Your task to perform on an android device: change the clock display to analog Image 0: 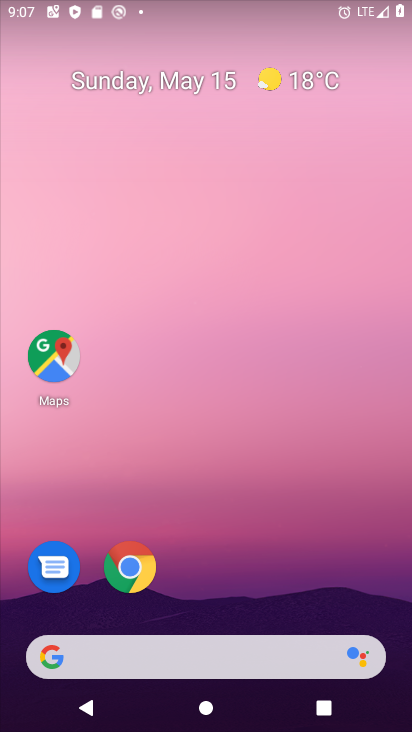
Step 0: drag from (156, 689) to (244, 0)
Your task to perform on an android device: change the clock display to analog Image 1: 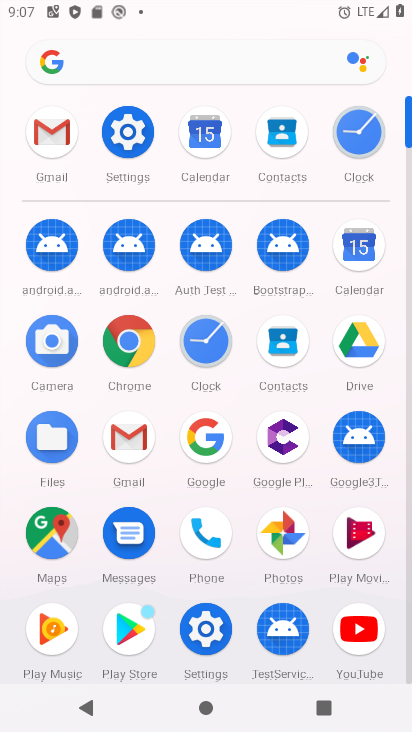
Step 1: click (209, 361)
Your task to perform on an android device: change the clock display to analog Image 2: 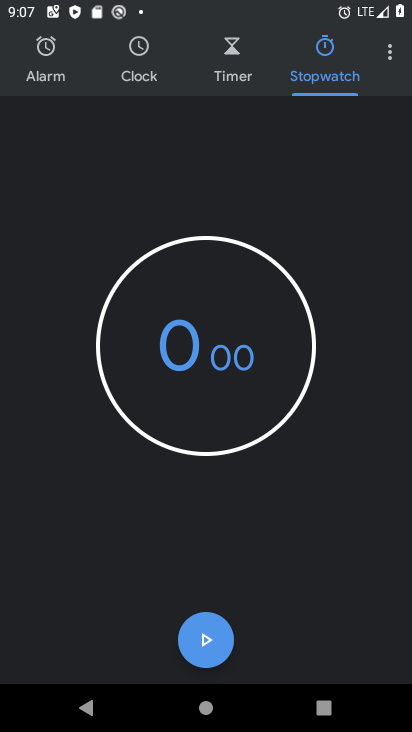
Step 2: click (390, 54)
Your task to perform on an android device: change the clock display to analog Image 3: 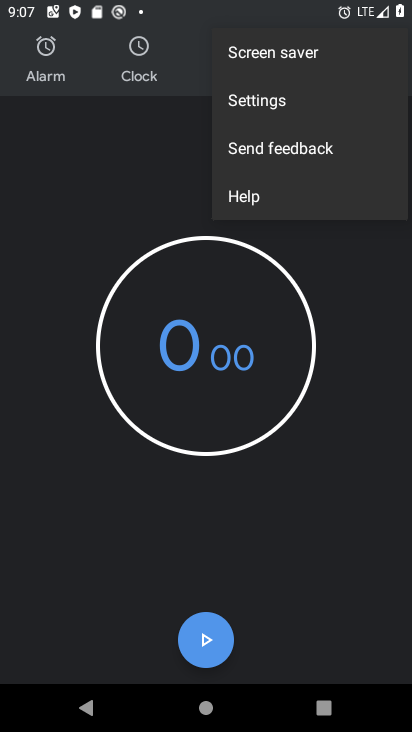
Step 3: click (288, 96)
Your task to perform on an android device: change the clock display to analog Image 4: 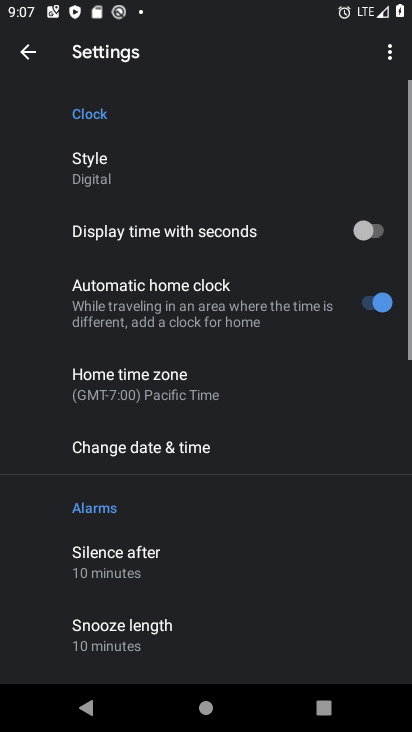
Step 4: click (216, 198)
Your task to perform on an android device: change the clock display to analog Image 5: 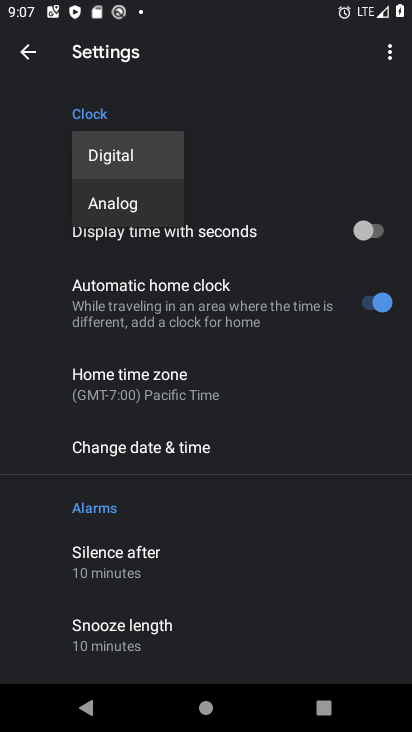
Step 5: click (115, 212)
Your task to perform on an android device: change the clock display to analog Image 6: 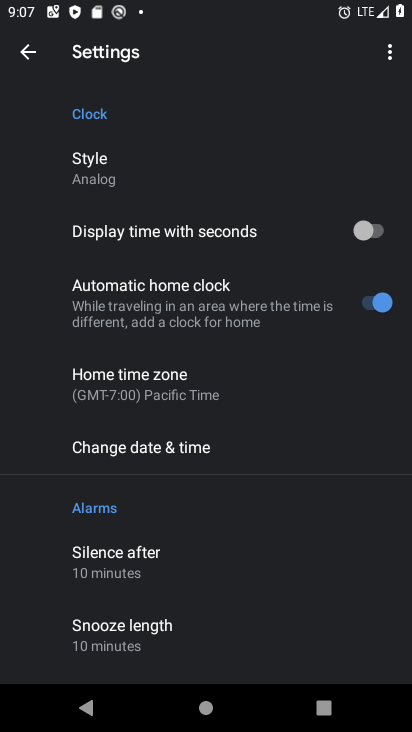
Step 6: task complete